Your task to perform on an android device: allow notifications from all sites in the chrome app Image 0: 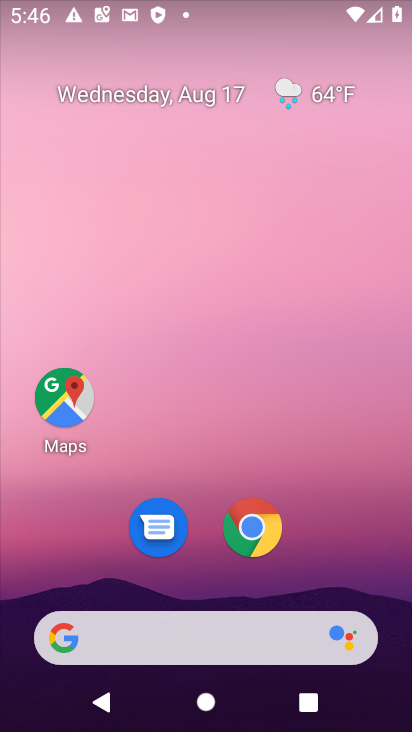
Step 0: drag from (202, 596) to (194, 286)
Your task to perform on an android device: allow notifications from all sites in the chrome app Image 1: 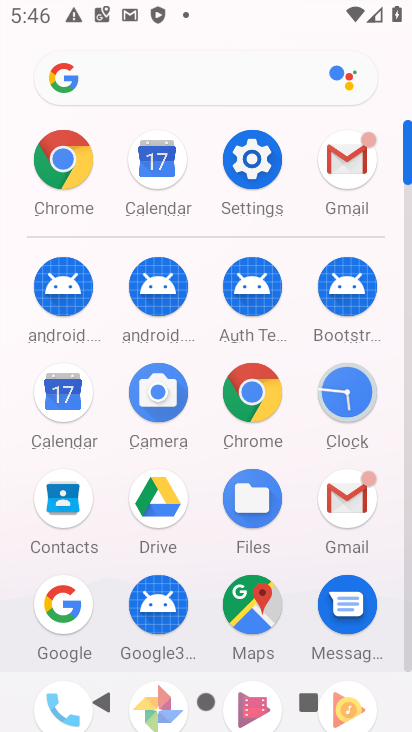
Step 1: click (237, 398)
Your task to perform on an android device: allow notifications from all sites in the chrome app Image 2: 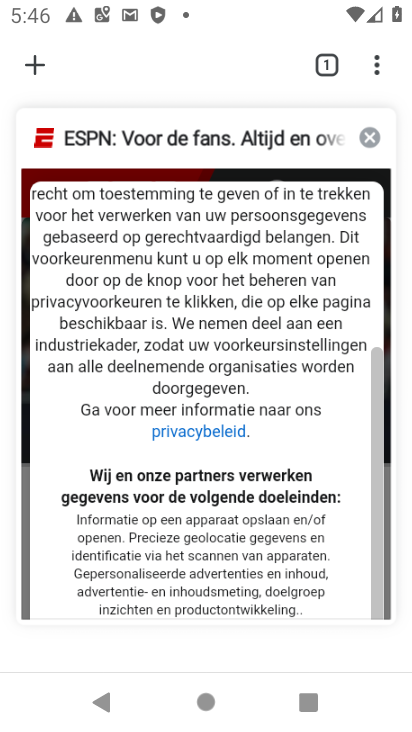
Step 2: click (380, 65)
Your task to perform on an android device: allow notifications from all sites in the chrome app Image 3: 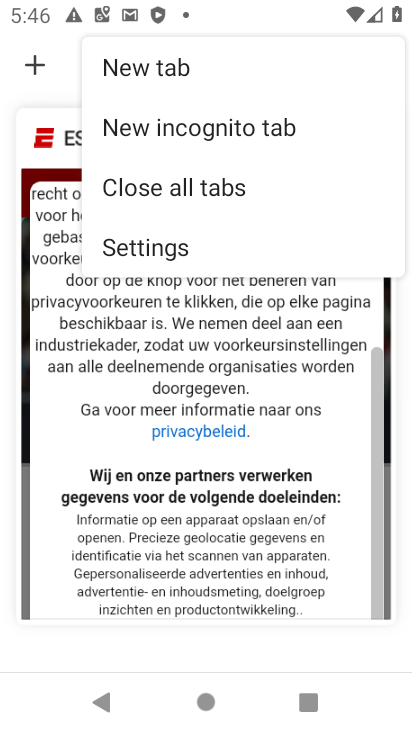
Step 3: click (153, 248)
Your task to perform on an android device: allow notifications from all sites in the chrome app Image 4: 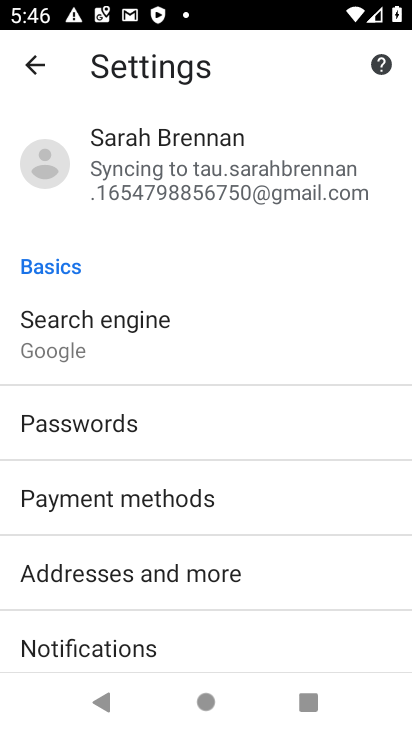
Step 4: drag from (72, 583) to (72, 192)
Your task to perform on an android device: allow notifications from all sites in the chrome app Image 5: 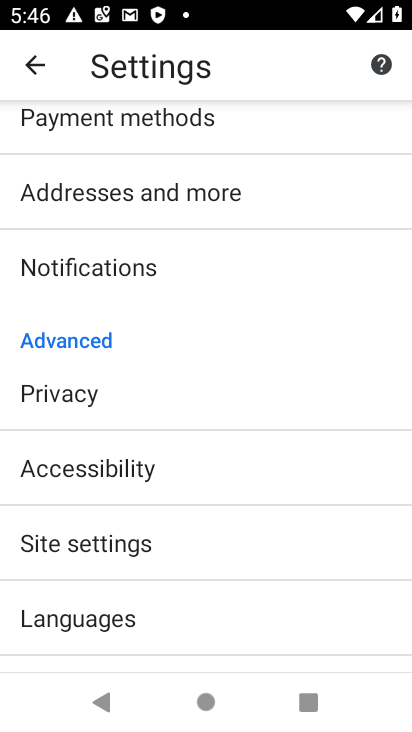
Step 5: click (43, 549)
Your task to perform on an android device: allow notifications from all sites in the chrome app Image 6: 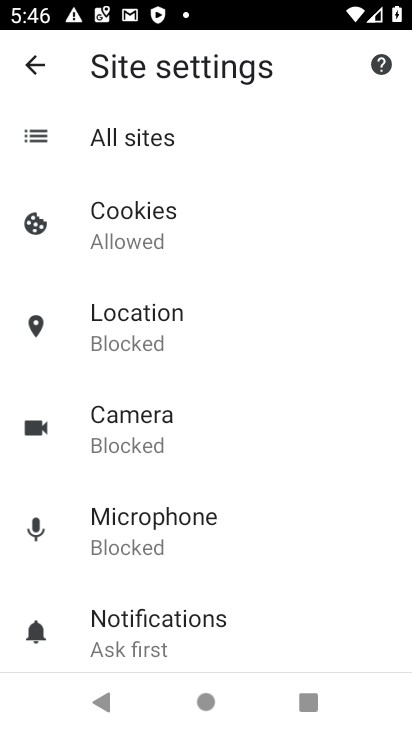
Step 6: click (153, 625)
Your task to perform on an android device: allow notifications from all sites in the chrome app Image 7: 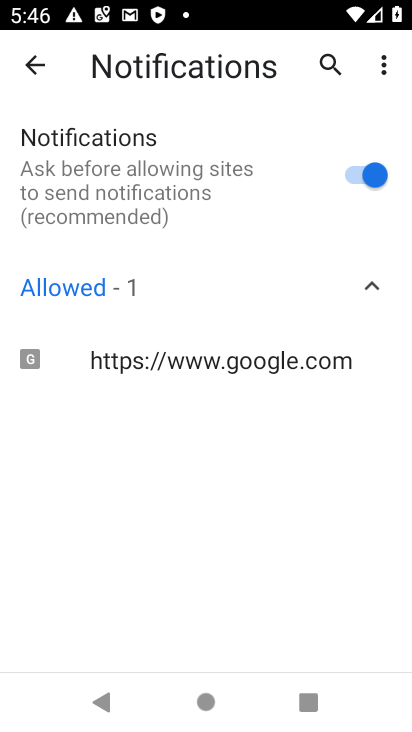
Step 7: task complete